Your task to perform on an android device: Search for seafood restaurants on Google Maps Image 0: 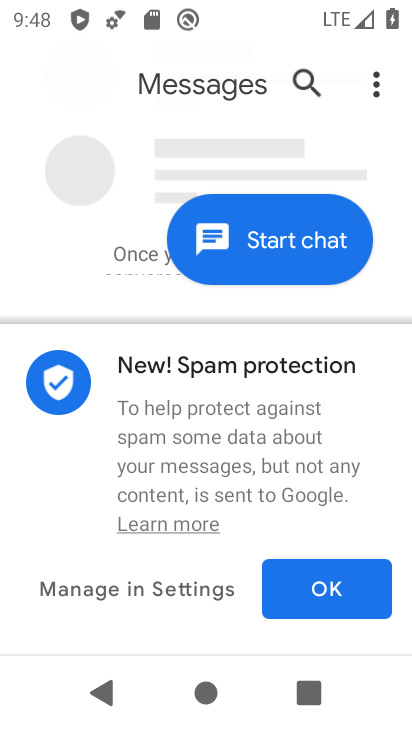
Step 0: press home button
Your task to perform on an android device: Search for seafood restaurants on Google Maps Image 1: 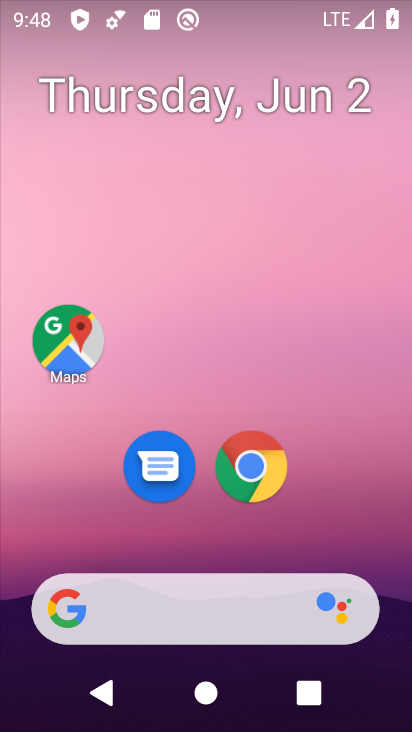
Step 1: click (84, 344)
Your task to perform on an android device: Search for seafood restaurants on Google Maps Image 2: 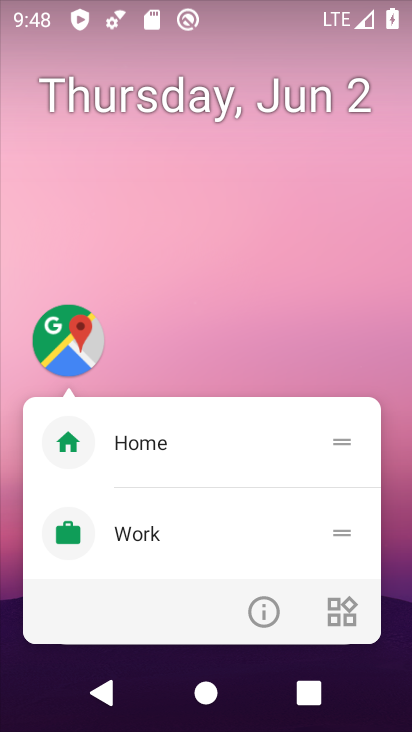
Step 2: click (76, 327)
Your task to perform on an android device: Search for seafood restaurants on Google Maps Image 3: 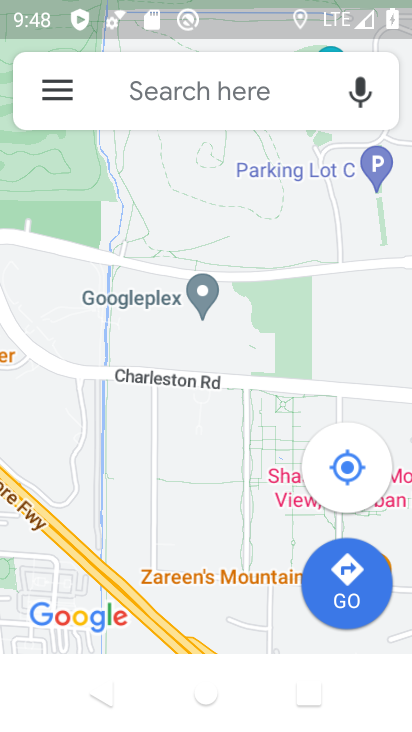
Step 3: click (185, 110)
Your task to perform on an android device: Search for seafood restaurants on Google Maps Image 4: 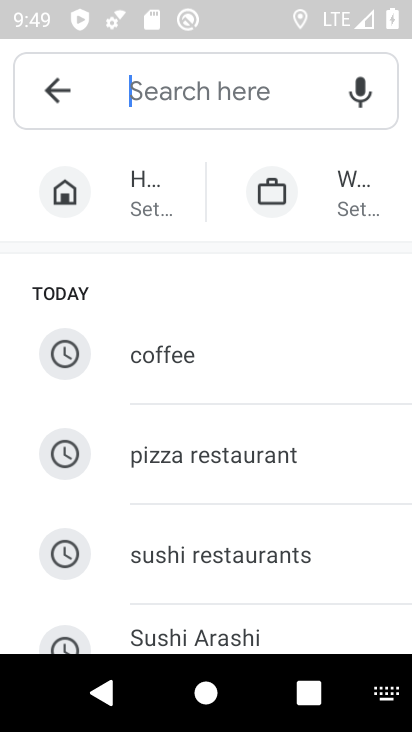
Step 4: type "seafood restaurants"
Your task to perform on an android device: Search for seafood restaurants on Google Maps Image 5: 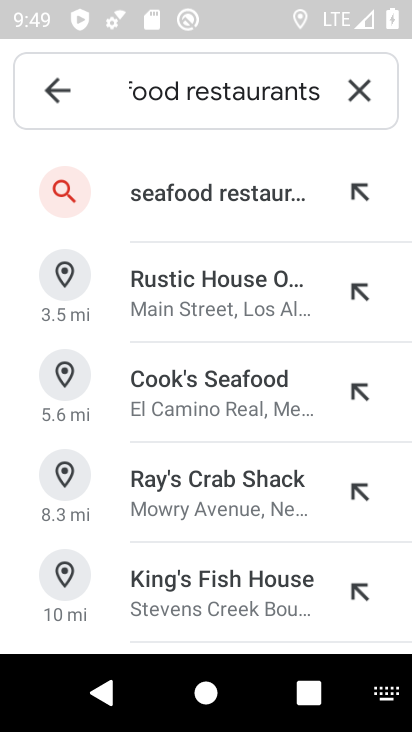
Step 5: click (253, 195)
Your task to perform on an android device: Search for seafood restaurants on Google Maps Image 6: 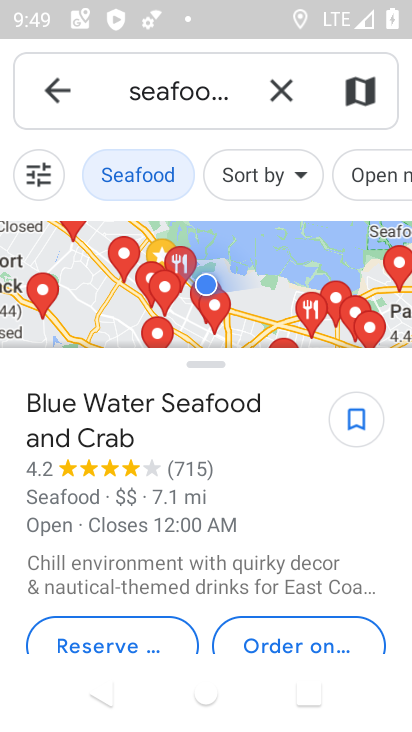
Step 6: task complete